Your task to perform on an android device: show emergency info Image 0: 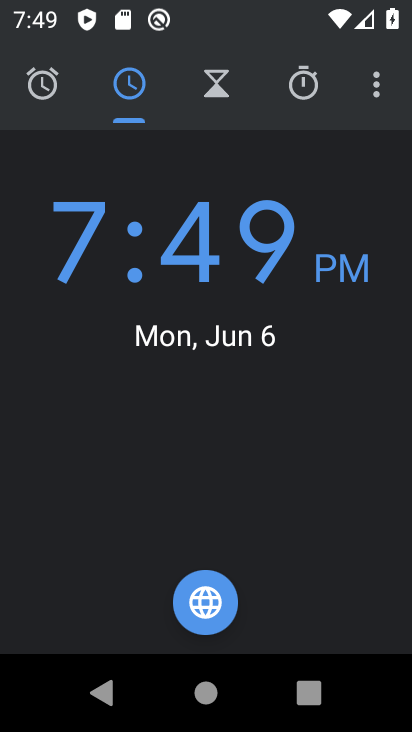
Step 0: press back button
Your task to perform on an android device: show emergency info Image 1: 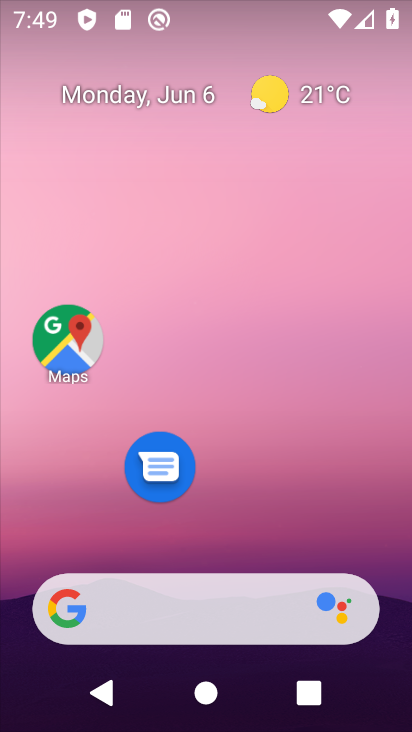
Step 1: drag from (234, 638) to (256, 63)
Your task to perform on an android device: show emergency info Image 2: 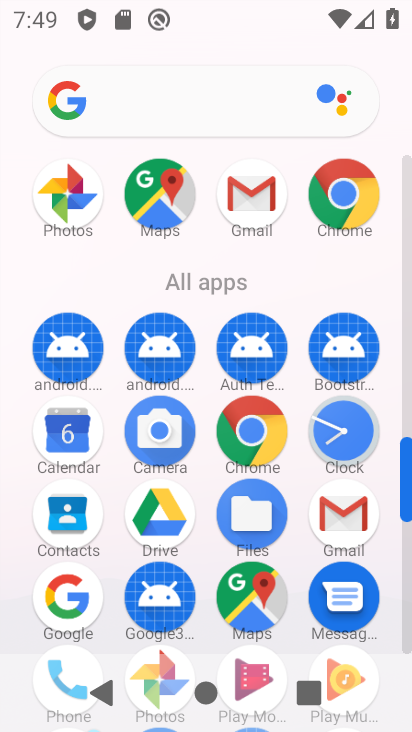
Step 2: drag from (289, 549) to (267, 200)
Your task to perform on an android device: show emergency info Image 3: 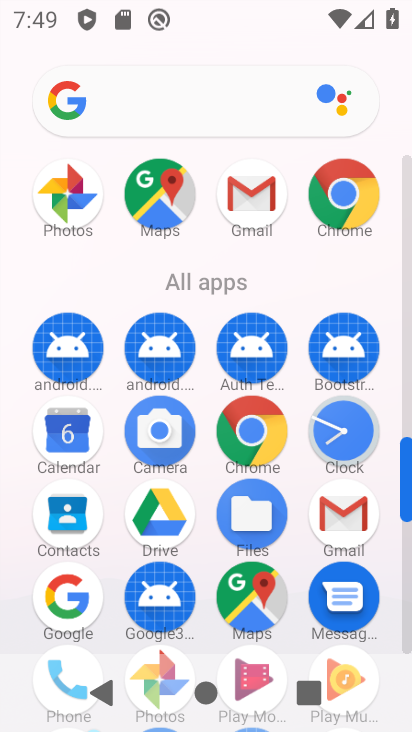
Step 3: drag from (267, 457) to (260, 202)
Your task to perform on an android device: show emergency info Image 4: 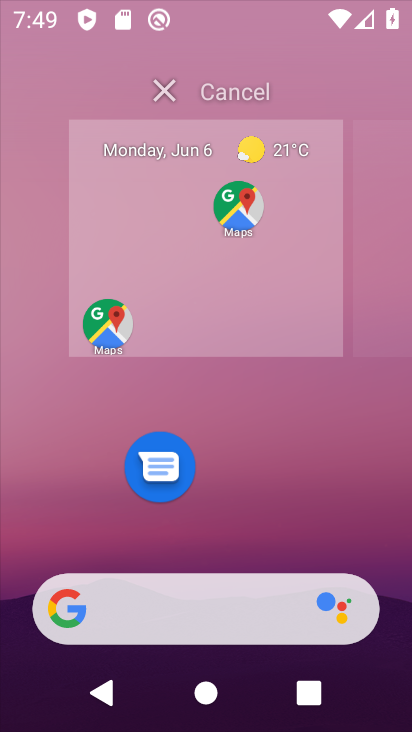
Step 4: click (144, 609)
Your task to perform on an android device: show emergency info Image 5: 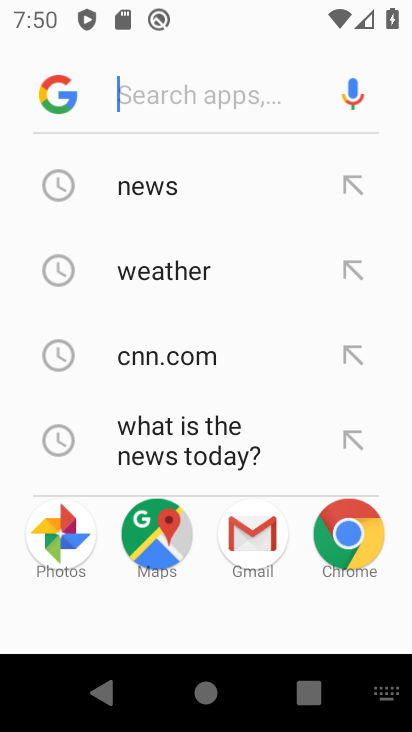
Step 5: press back button
Your task to perform on an android device: show emergency info Image 6: 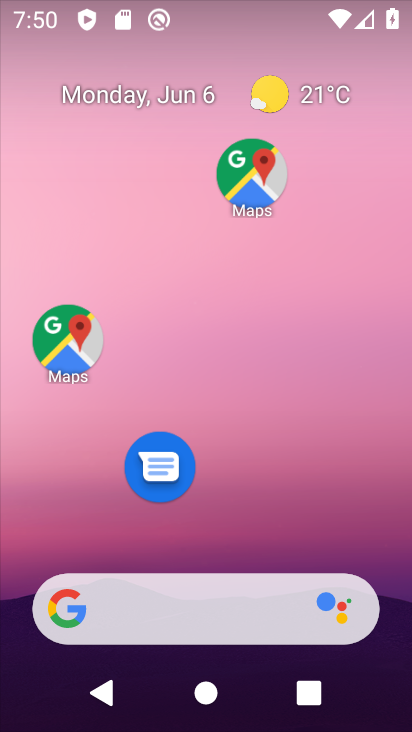
Step 6: drag from (255, 677) to (306, 112)
Your task to perform on an android device: show emergency info Image 7: 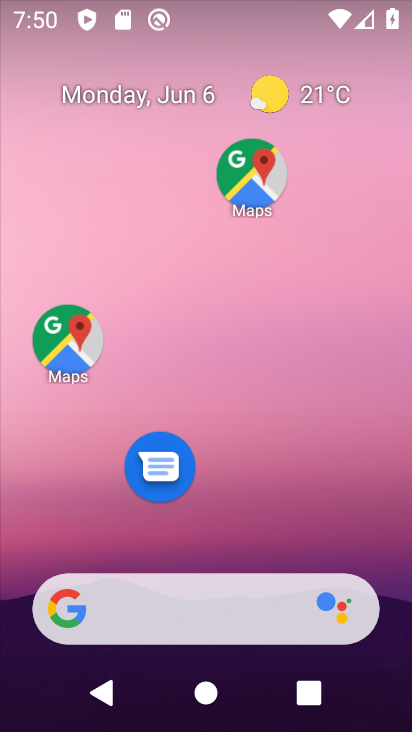
Step 7: drag from (229, 698) to (174, 255)
Your task to perform on an android device: show emergency info Image 8: 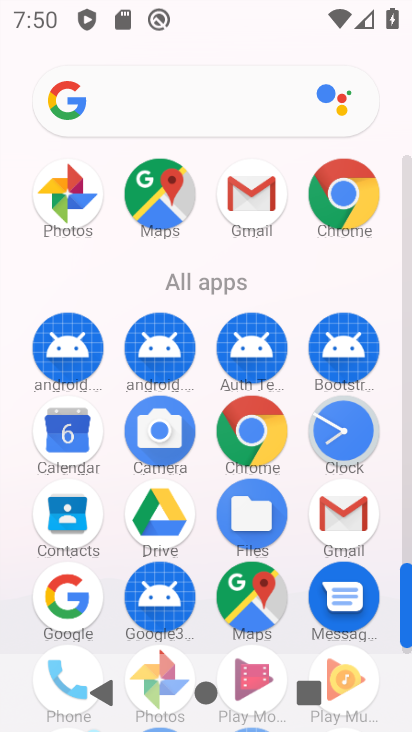
Step 8: drag from (186, 536) to (237, 219)
Your task to perform on an android device: show emergency info Image 9: 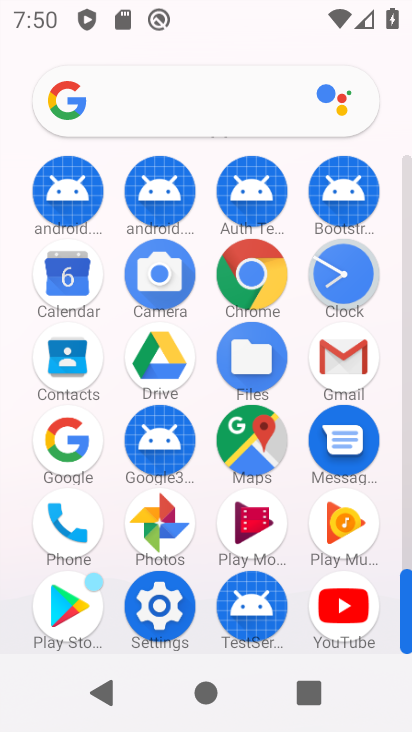
Step 9: drag from (286, 555) to (283, 249)
Your task to perform on an android device: show emergency info Image 10: 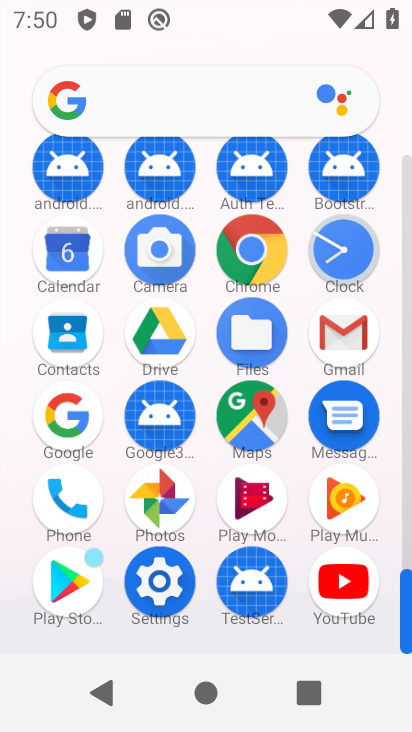
Step 10: drag from (335, 589) to (314, 265)
Your task to perform on an android device: show emergency info Image 11: 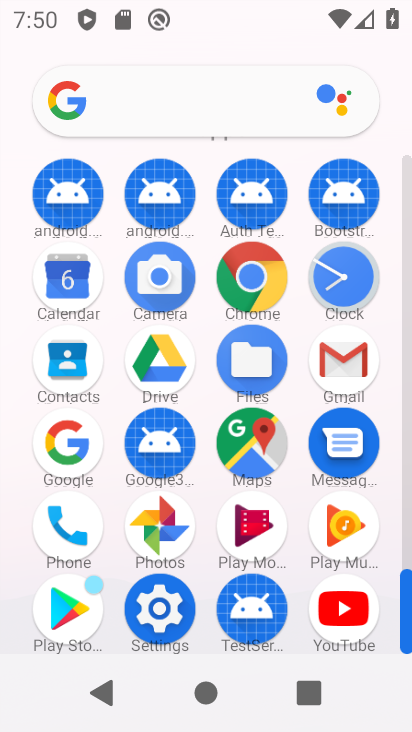
Step 11: click (157, 596)
Your task to perform on an android device: show emergency info Image 12: 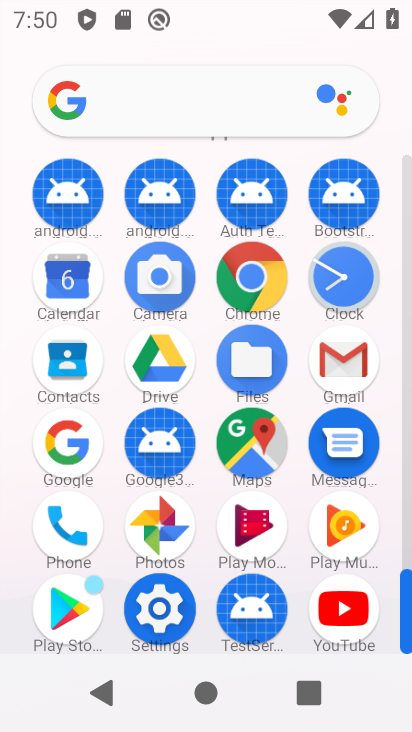
Step 12: click (157, 596)
Your task to perform on an android device: show emergency info Image 13: 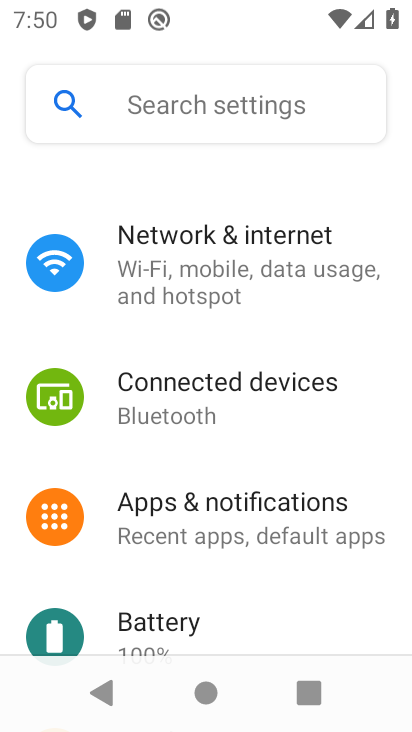
Step 13: drag from (192, 305) to (189, 80)
Your task to perform on an android device: show emergency info Image 14: 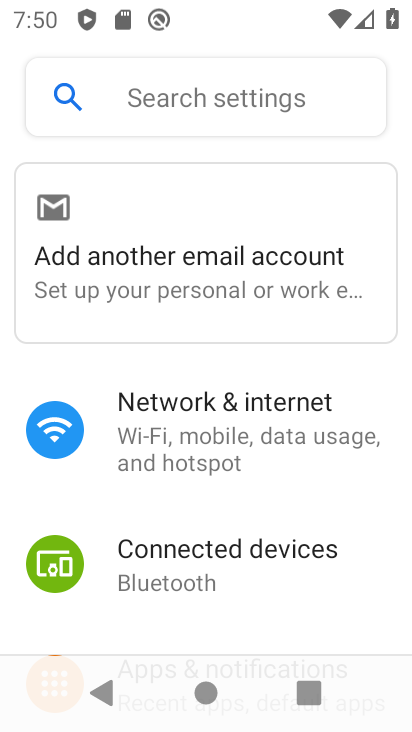
Step 14: drag from (176, 427) to (176, 159)
Your task to perform on an android device: show emergency info Image 15: 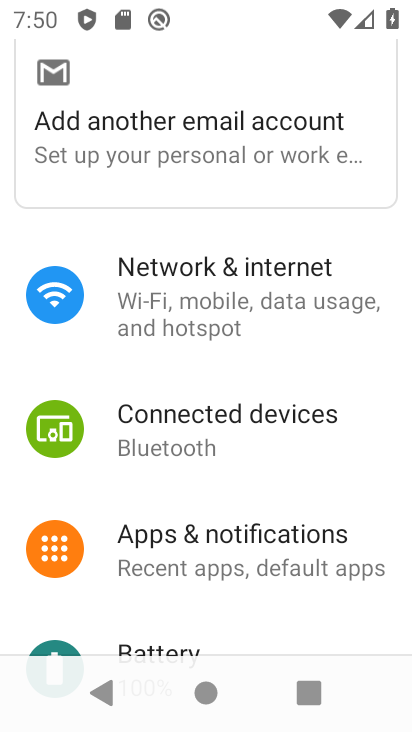
Step 15: drag from (163, 463) to (175, 132)
Your task to perform on an android device: show emergency info Image 16: 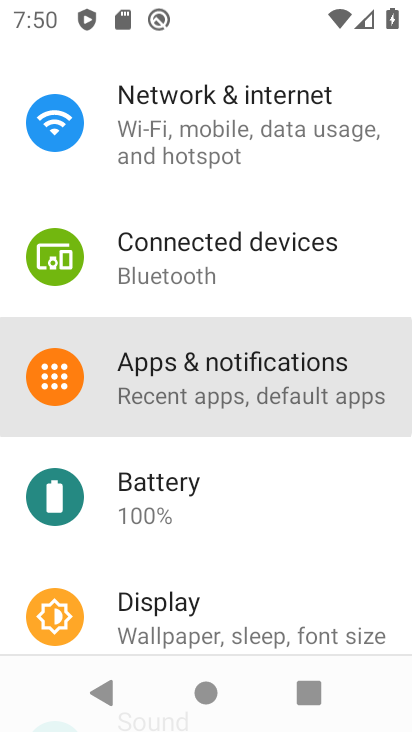
Step 16: drag from (244, 473) to (244, 194)
Your task to perform on an android device: show emergency info Image 17: 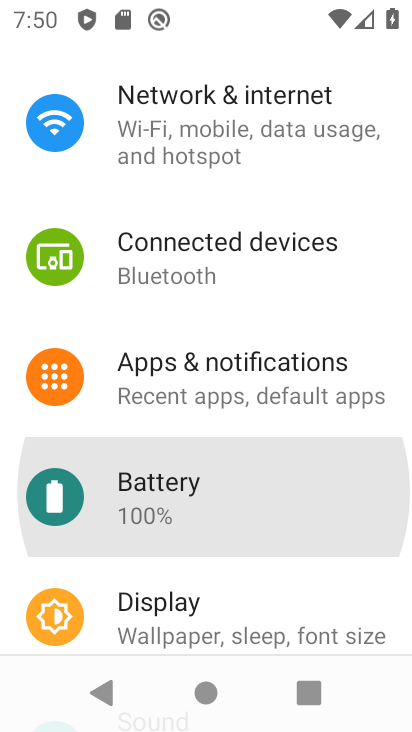
Step 17: drag from (218, 354) to (218, 87)
Your task to perform on an android device: show emergency info Image 18: 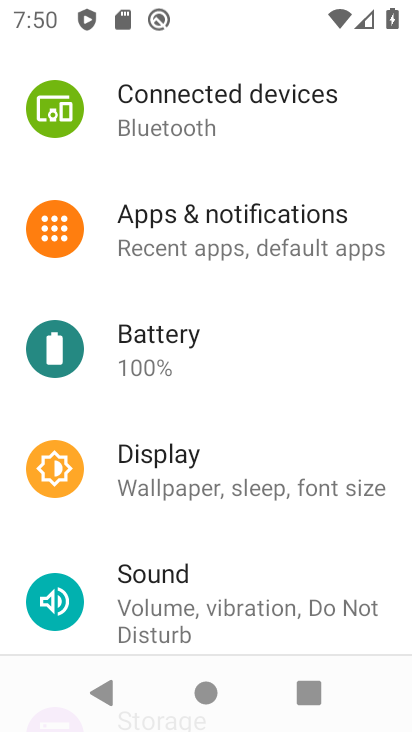
Step 18: drag from (222, 507) to (244, 233)
Your task to perform on an android device: show emergency info Image 19: 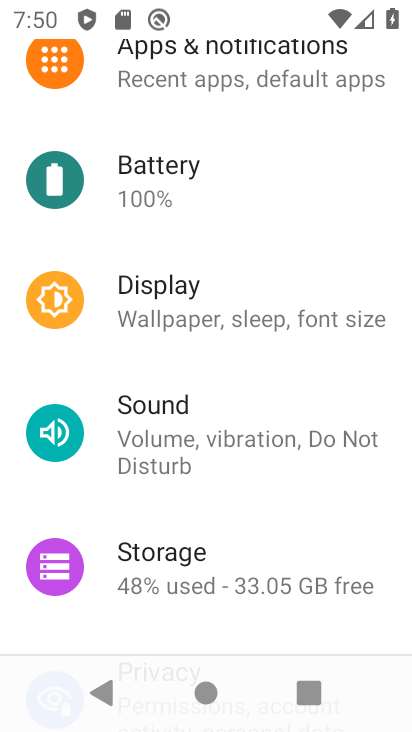
Step 19: drag from (240, 370) to (256, 187)
Your task to perform on an android device: show emergency info Image 20: 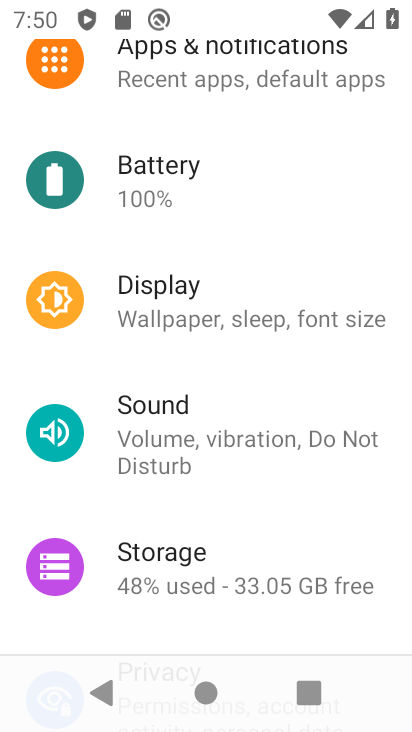
Step 20: drag from (256, 505) to (255, 176)
Your task to perform on an android device: show emergency info Image 21: 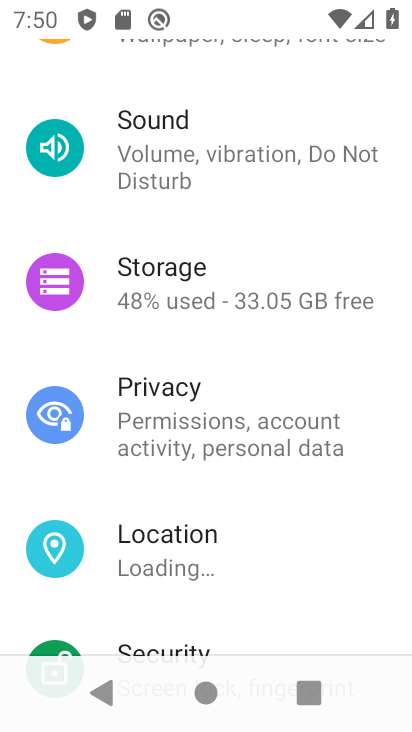
Step 21: drag from (254, 533) to (254, 265)
Your task to perform on an android device: show emergency info Image 22: 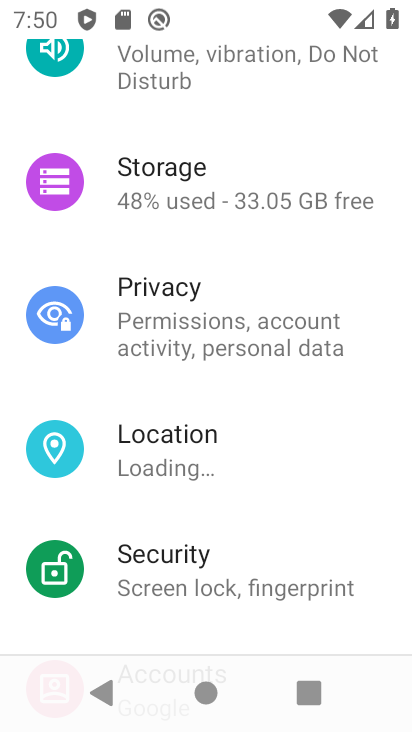
Step 22: drag from (227, 492) to (219, 294)
Your task to perform on an android device: show emergency info Image 23: 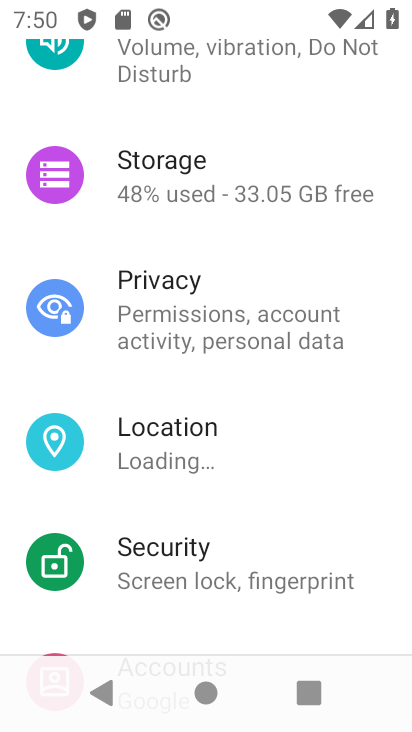
Step 23: drag from (205, 528) to (205, 302)
Your task to perform on an android device: show emergency info Image 24: 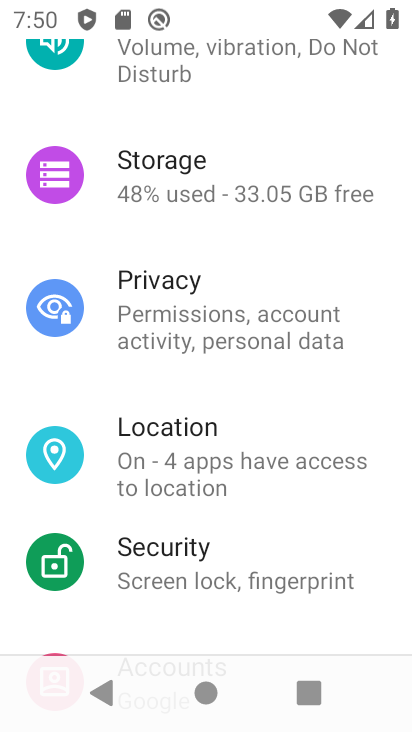
Step 24: drag from (224, 644) to (224, 273)
Your task to perform on an android device: show emergency info Image 25: 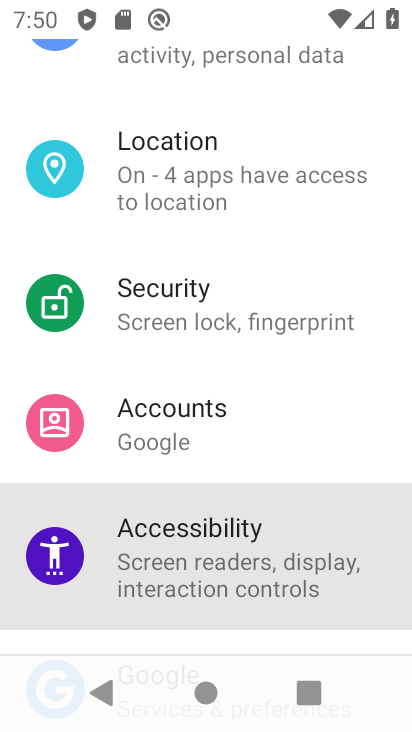
Step 25: drag from (187, 520) to (187, 363)
Your task to perform on an android device: show emergency info Image 26: 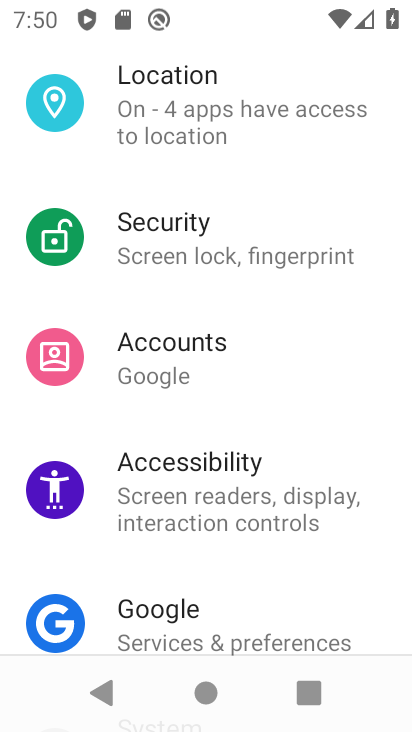
Step 26: drag from (181, 478) to (210, 311)
Your task to perform on an android device: show emergency info Image 27: 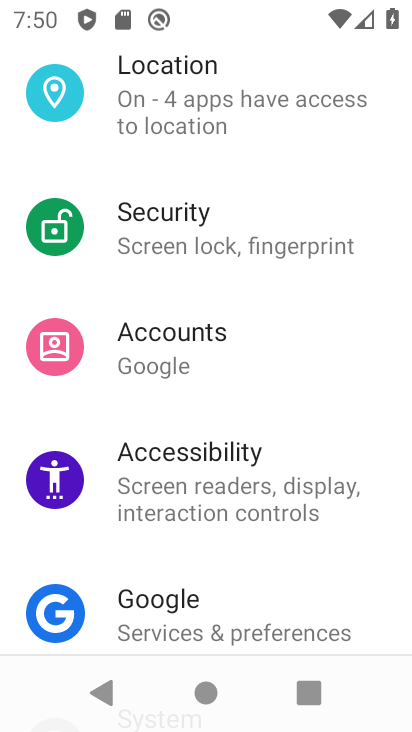
Step 27: drag from (219, 545) to (219, 314)
Your task to perform on an android device: show emergency info Image 28: 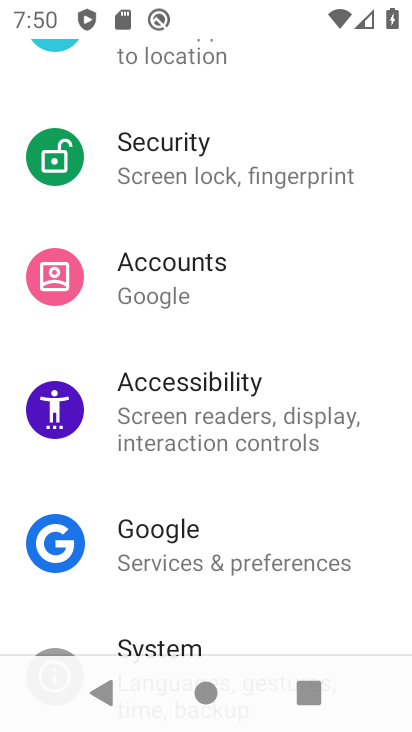
Step 28: drag from (219, 565) to (188, 290)
Your task to perform on an android device: show emergency info Image 29: 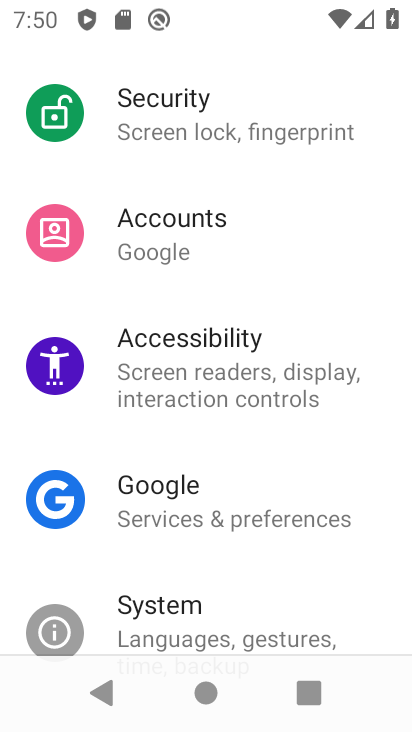
Step 29: drag from (232, 474) to (233, 310)
Your task to perform on an android device: show emergency info Image 30: 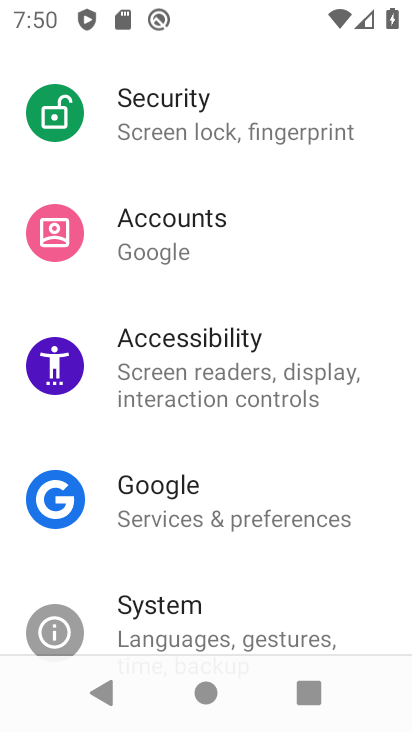
Step 30: drag from (238, 575) to (261, 364)
Your task to perform on an android device: show emergency info Image 31: 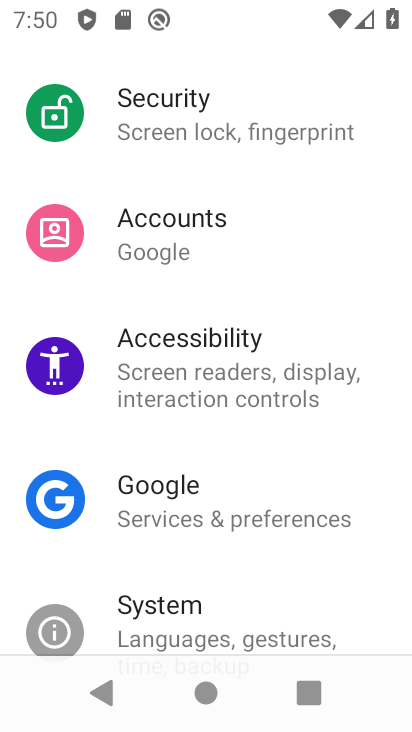
Step 31: drag from (262, 528) to (262, 303)
Your task to perform on an android device: show emergency info Image 32: 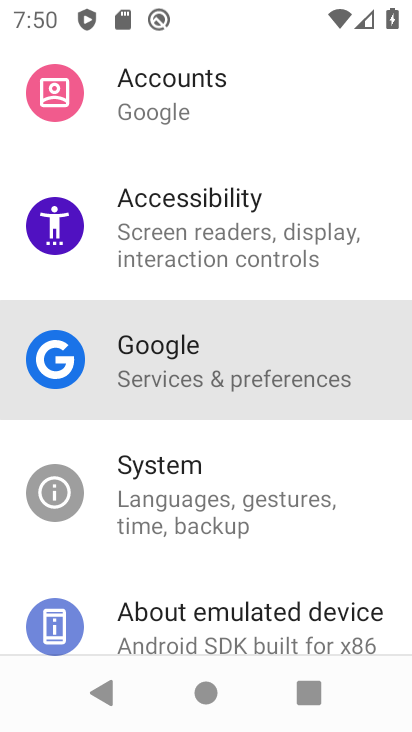
Step 32: drag from (255, 503) to (255, 312)
Your task to perform on an android device: show emergency info Image 33: 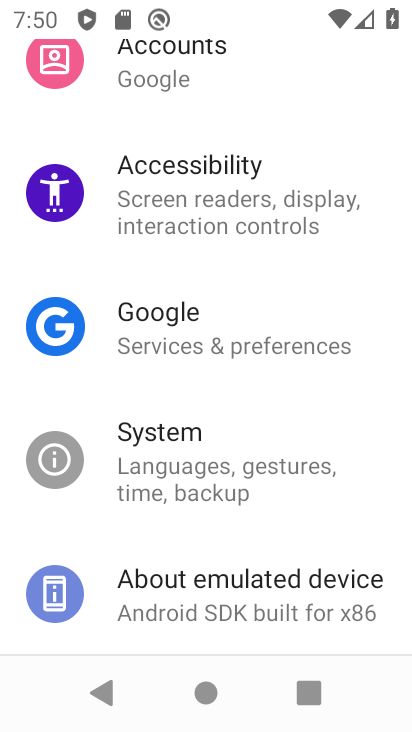
Step 33: drag from (214, 515) to (215, 300)
Your task to perform on an android device: show emergency info Image 34: 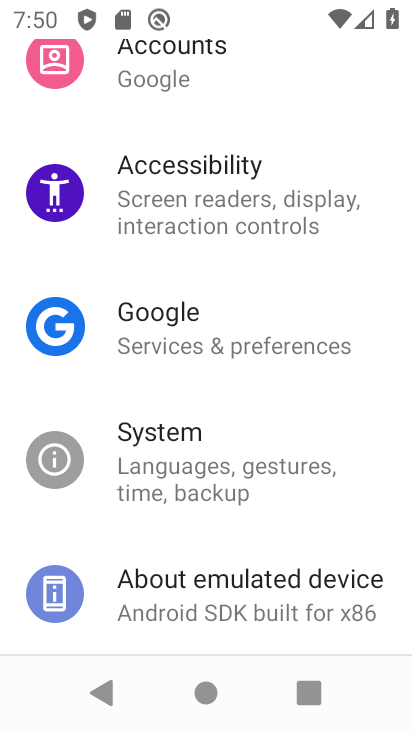
Step 34: drag from (221, 441) to (233, 341)
Your task to perform on an android device: show emergency info Image 35: 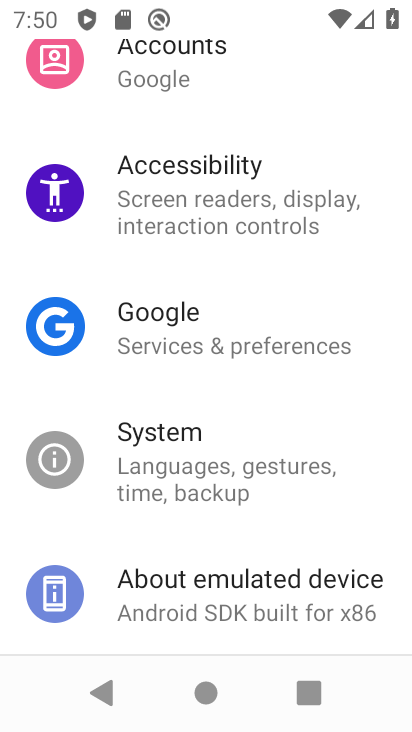
Step 35: click (269, 604)
Your task to perform on an android device: show emergency info Image 36: 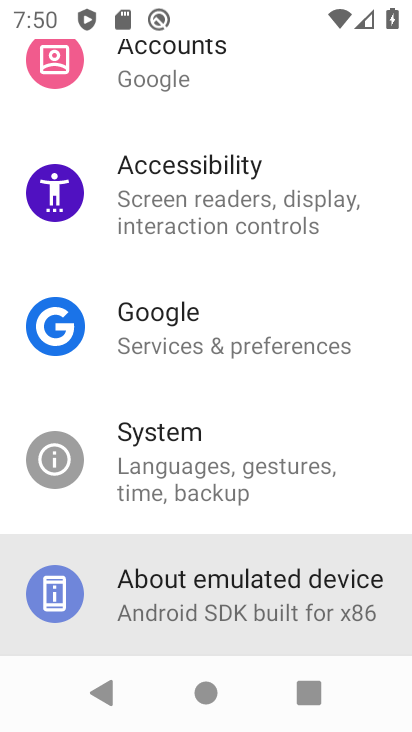
Step 36: click (269, 603)
Your task to perform on an android device: show emergency info Image 37: 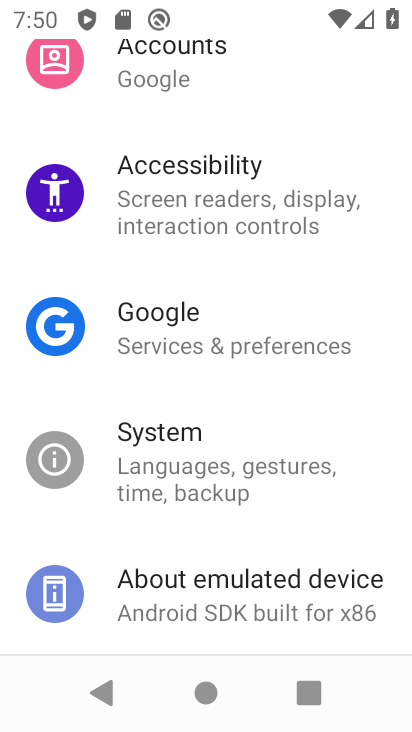
Step 37: click (269, 603)
Your task to perform on an android device: show emergency info Image 38: 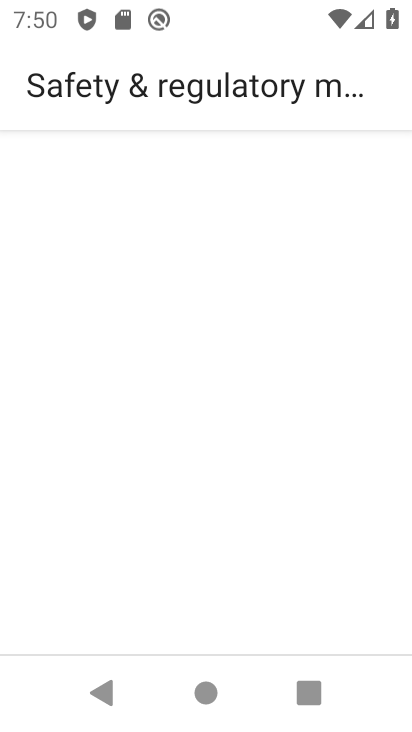
Step 38: task complete